Your task to perform on an android device: find which apps use the phone's location Image 0: 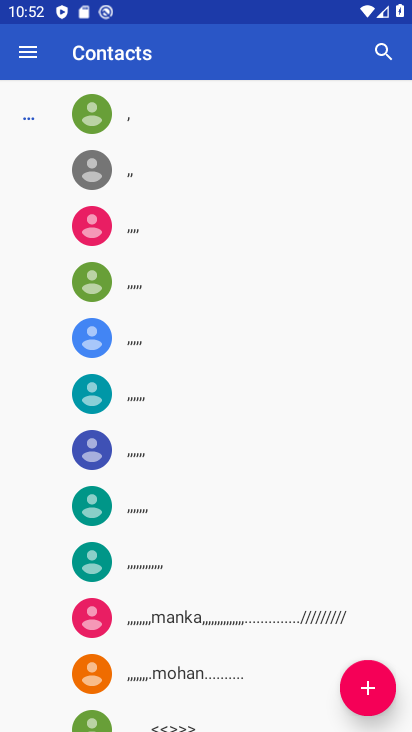
Step 0: press home button
Your task to perform on an android device: find which apps use the phone's location Image 1: 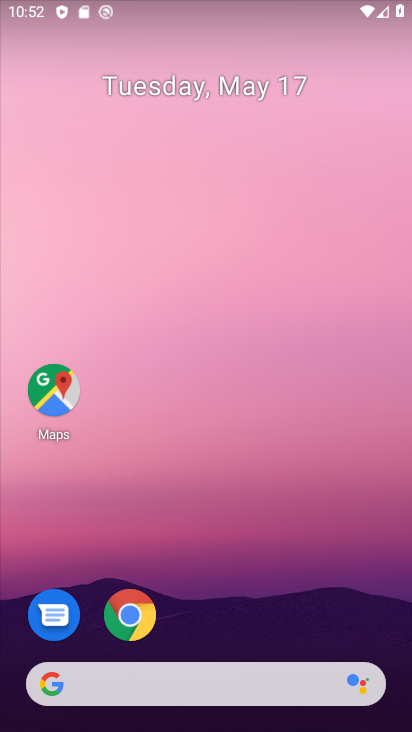
Step 1: drag from (185, 635) to (199, 270)
Your task to perform on an android device: find which apps use the phone's location Image 2: 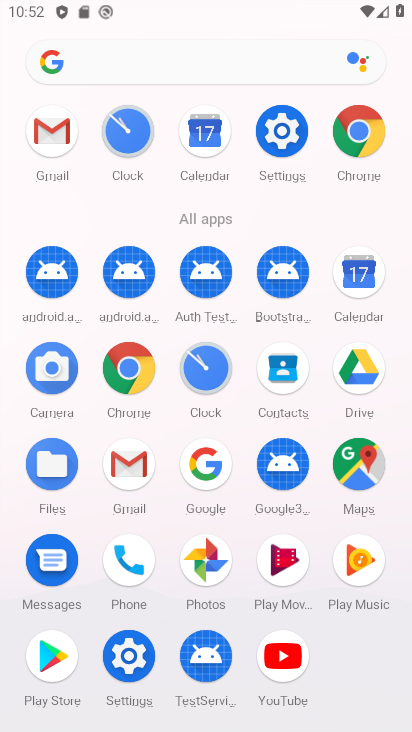
Step 2: click (290, 139)
Your task to perform on an android device: find which apps use the phone's location Image 3: 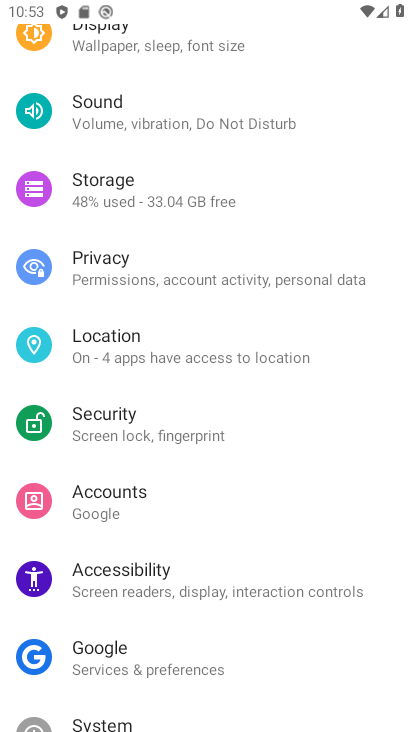
Step 3: click (172, 335)
Your task to perform on an android device: find which apps use the phone's location Image 4: 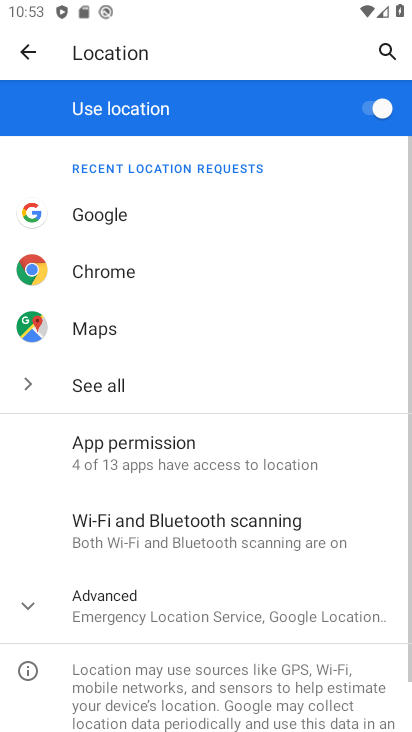
Step 4: click (103, 382)
Your task to perform on an android device: find which apps use the phone's location Image 5: 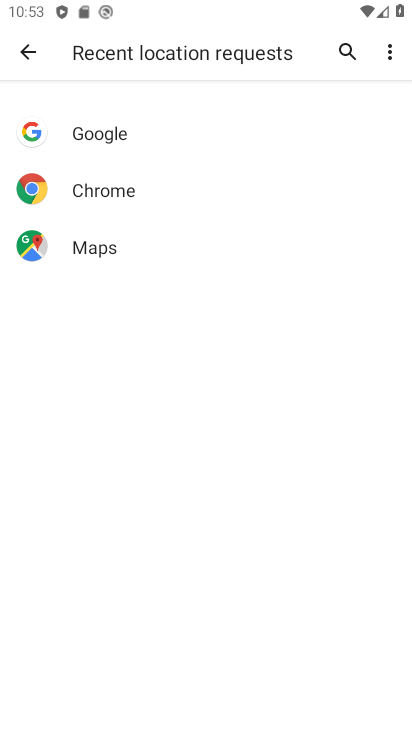
Step 5: task complete